Your task to perform on an android device: Open internet settings Image 0: 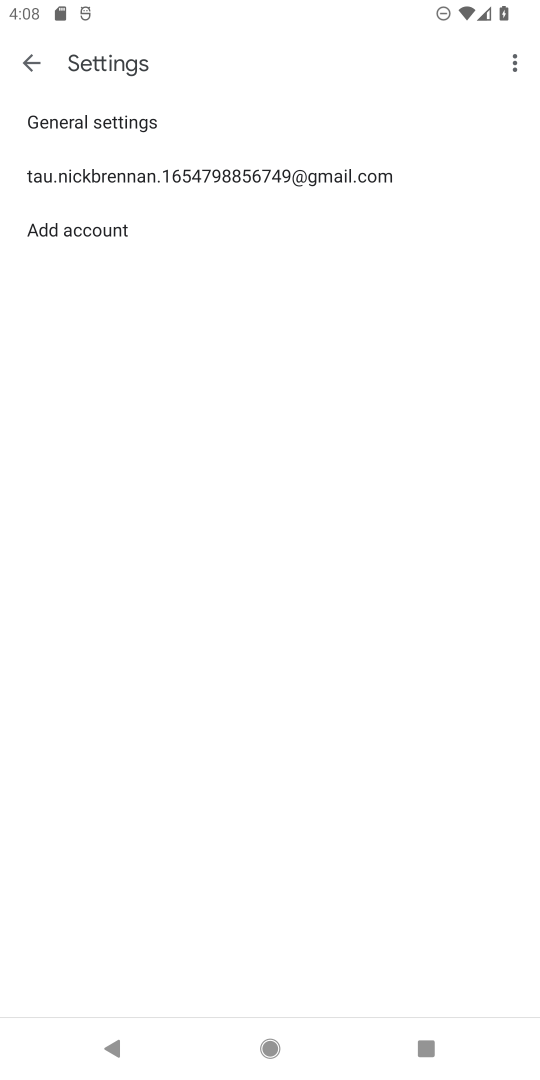
Step 0: press home button
Your task to perform on an android device: Open internet settings Image 1: 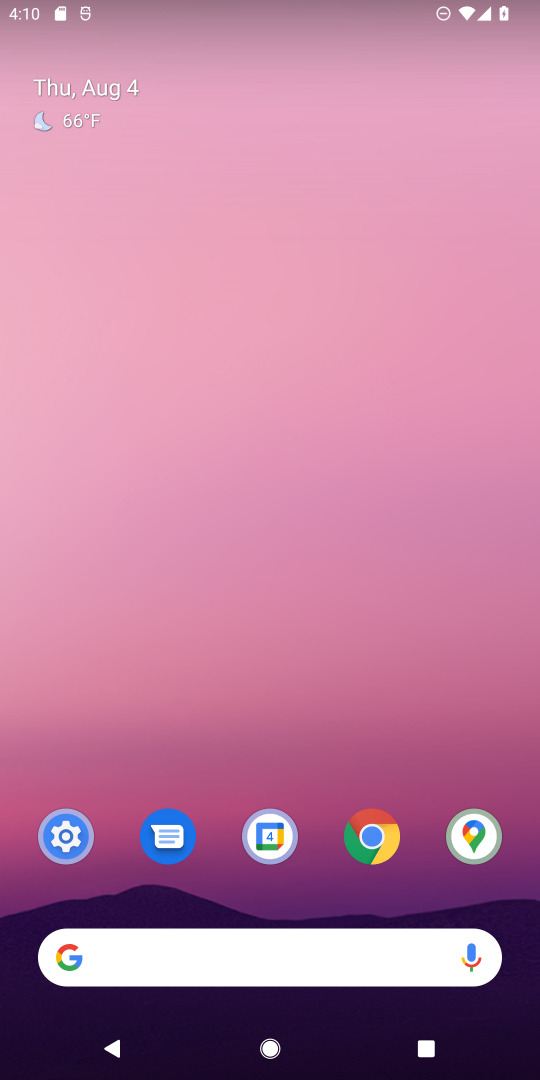
Step 1: click (70, 839)
Your task to perform on an android device: Open internet settings Image 2: 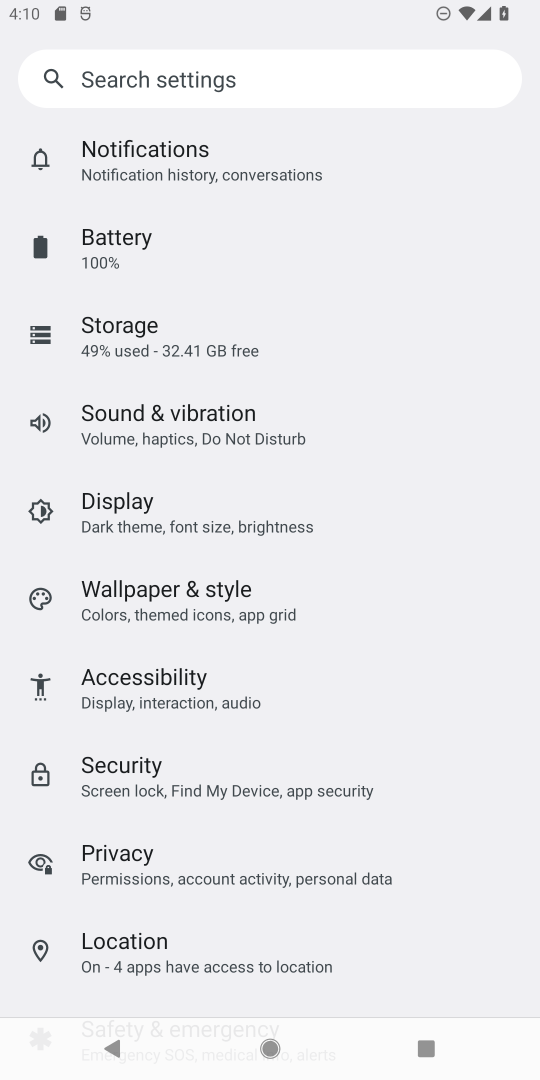
Step 2: drag from (291, 227) to (237, 1077)
Your task to perform on an android device: Open internet settings Image 3: 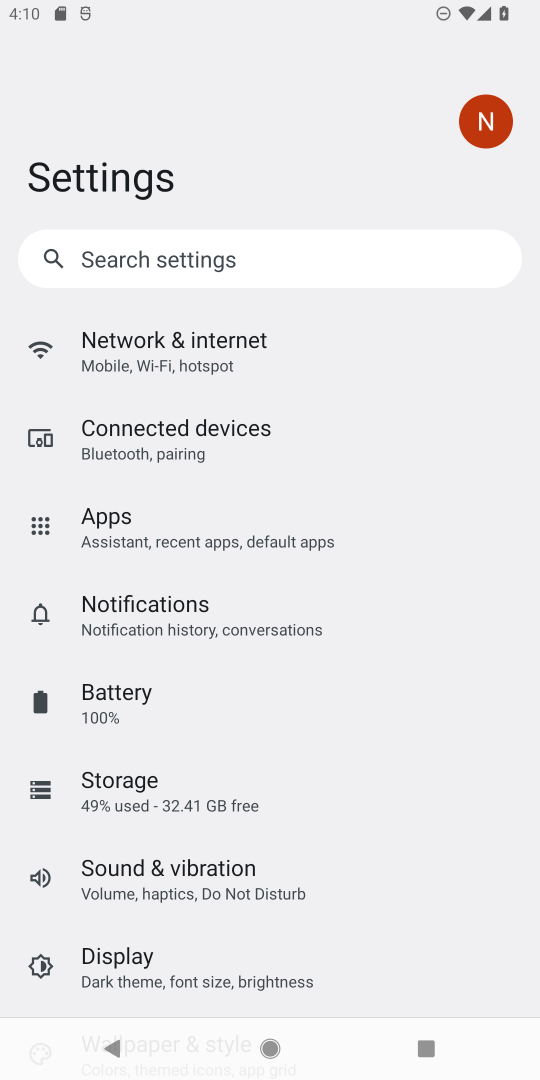
Step 3: click (253, 360)
Your task to perform on an android device: Open internet settings Image 4: 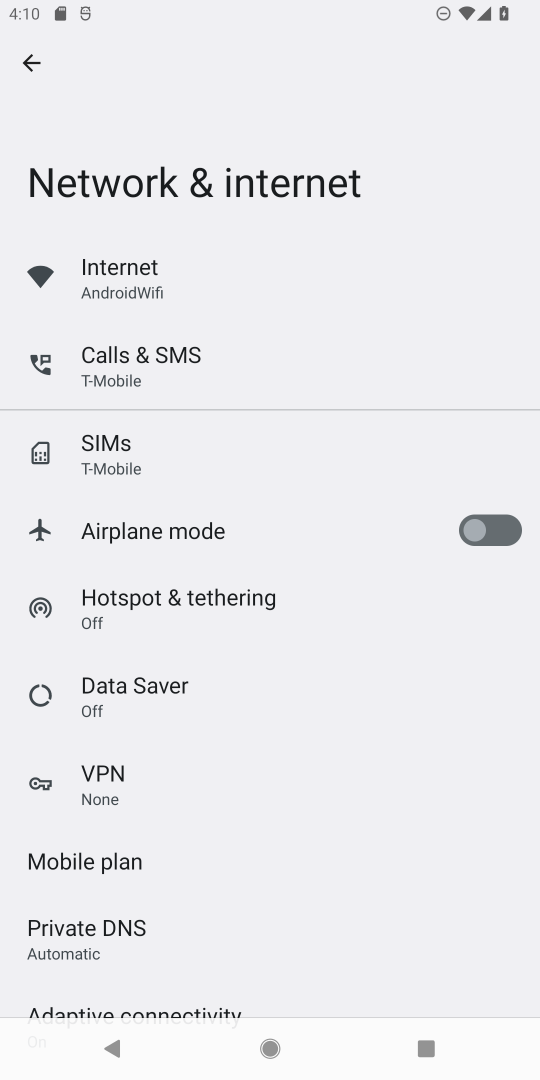
Step 4: task complete